Your task to perform on an android device: turn off location history Image 0: 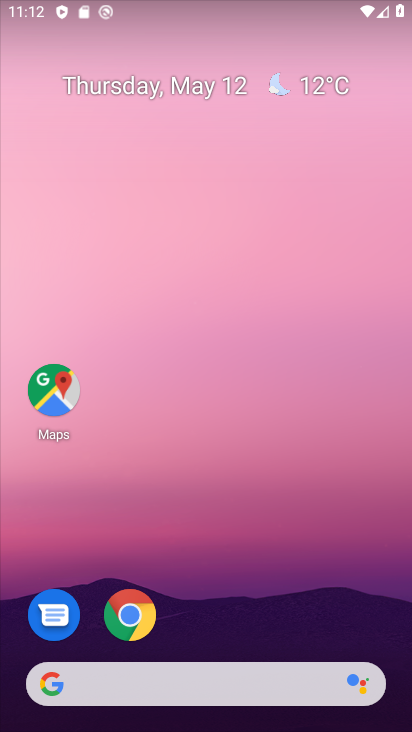
Step 0: drag from (220, 623) to (223, 147)
Your task to perform on an android device: turn off location history Image 1: 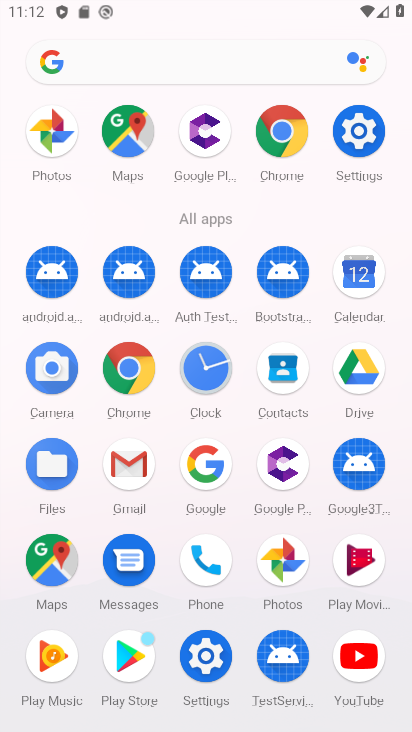
Step 1: click (345, 143)
Your task to perform on an android device: turn off location history Image 2: 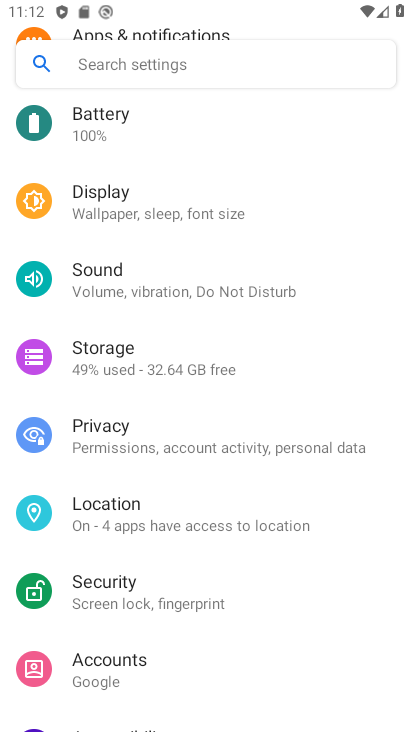
Step 2: click (154, 519)
Your task to perform on an android device: turn off location history Image 3: 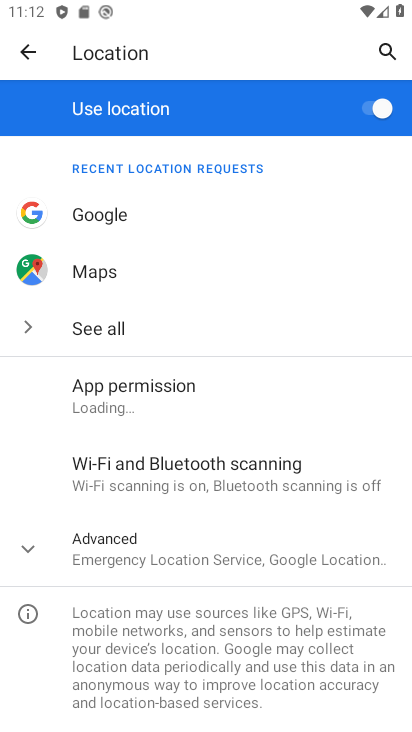
Step 3: drag from (235, 637) to (235, 360)
Your task to perform on an android device: turn off location history Image 4: 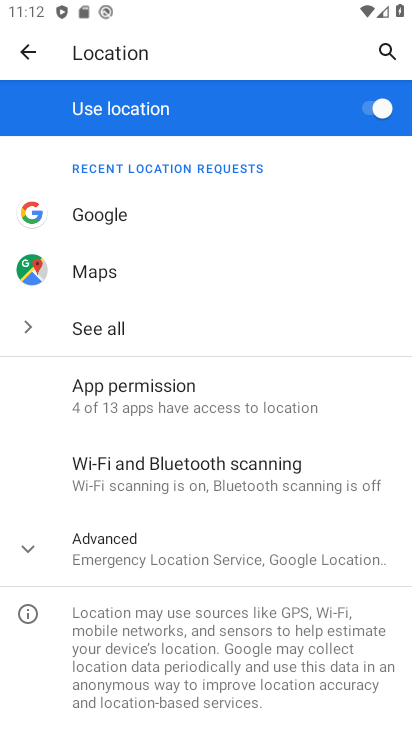
Step 4: click (110, 524)
Your task to perform on an android device: turn off location history Image 5: 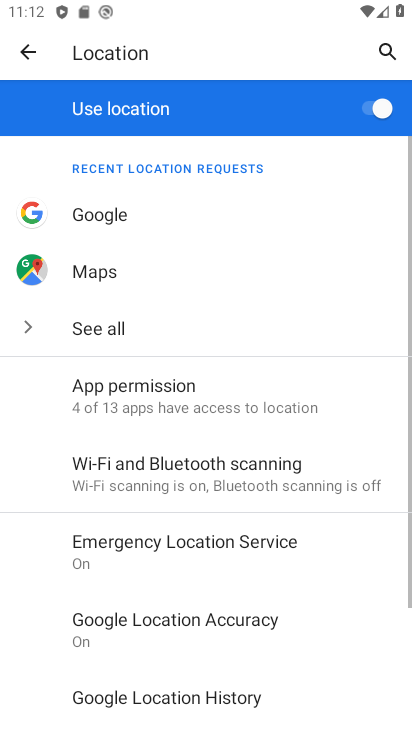
Step 5: drag from (197, 646) to (237, 383)
Your task to perform on an android device: turn off location history Image 6: 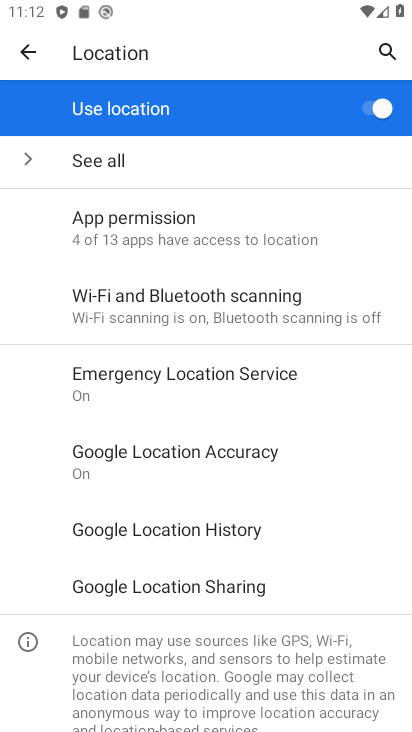
Step 6: click (243, 517)
Your task to perform on an android device: turn off location history Image 7: 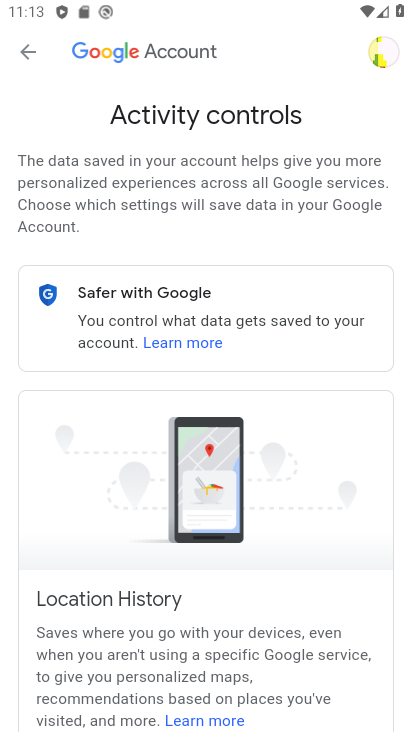
Step 7: drag from (262, 574) to (229, 198)
Your task to perform on an android device: turn off location history Image 8: 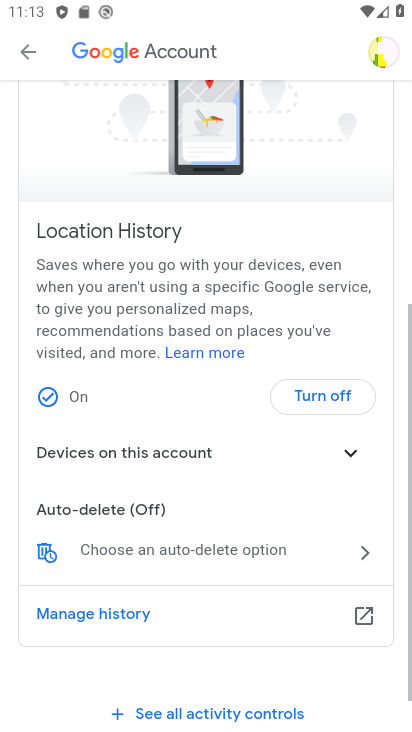
Step 8: drag from (255, 551) to (209, 230)
Your task to perform on an android device: turn off location history Image 9: 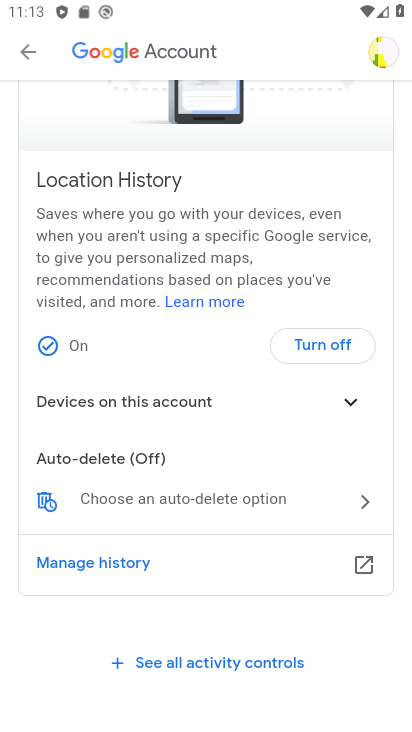
Step 9: click (304, 355)
Your task to perform on an android device: turn off location history Image 10: 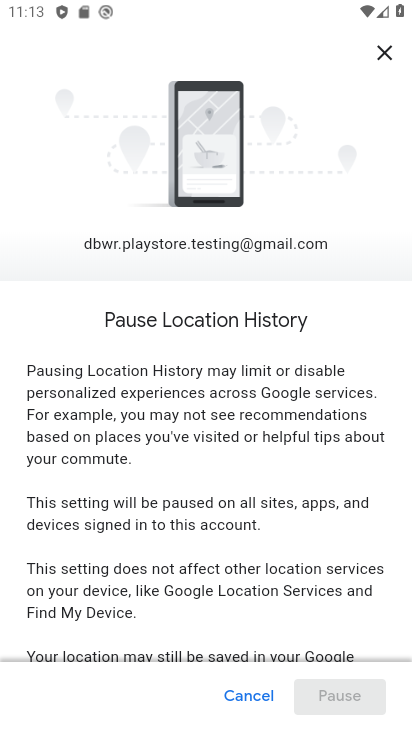
Step 10: drag from (250, 614) to (299, 193)
Your task to perform on an android device: turn off location history Image 11: 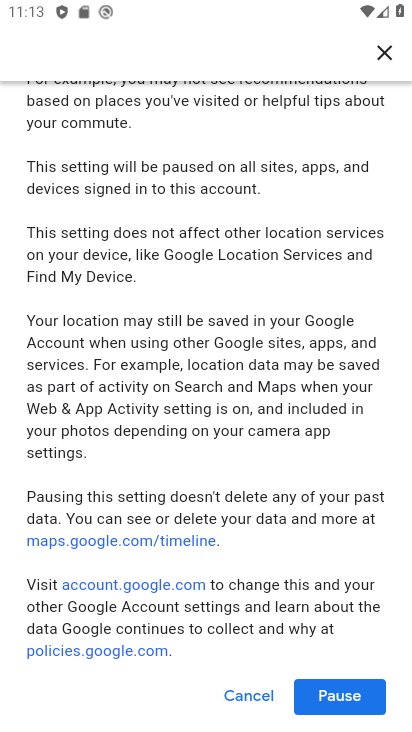
Step 11: drag from (306, 421) to (306, 237)
Your task to perform on an android device: turn off location history Image 12: 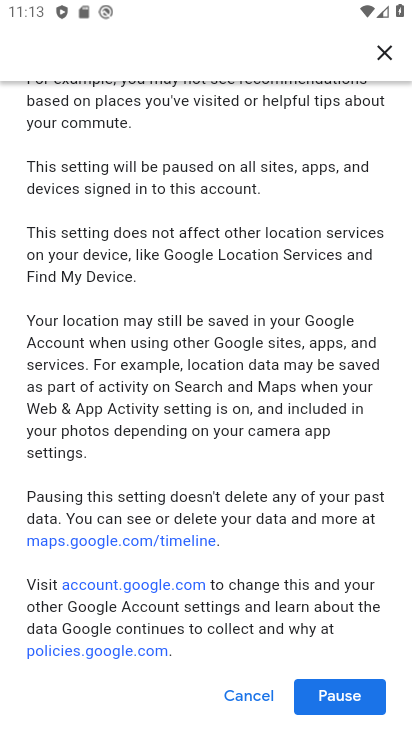
Step 12: drag from (305, 506) to (300, 328)
Your task to perform on an android device: turn off location history Image 13: 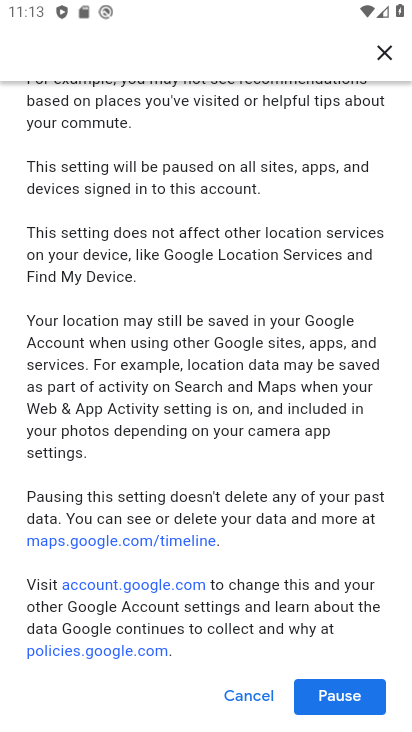
Step 13: click (343, 691)
Your task to perform on an android device: turn off location history Image 14: 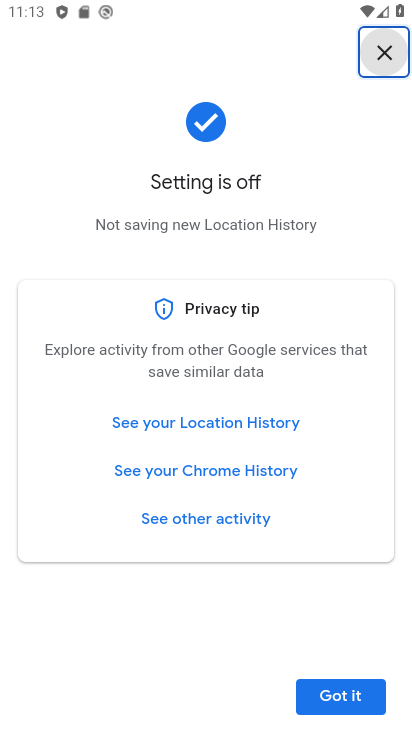
Step 14: task complete